Your task to perform on an android device: What's on my calendar tomorrow? Image 0: 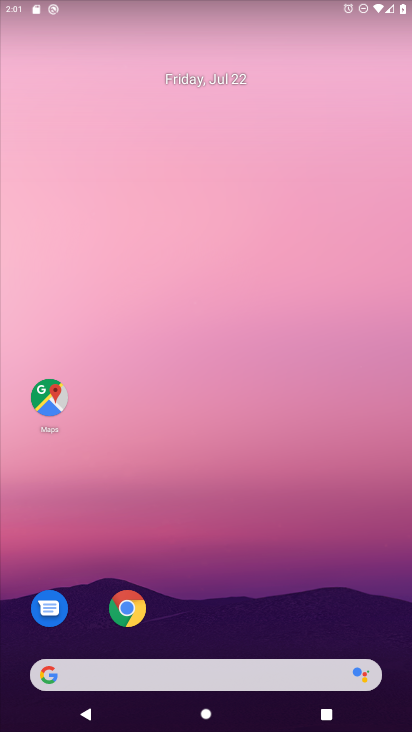
Step 0: drag from (300, 570) to (191, 29)
Your task to perform on an android device: What's on my calendar tomorrow? Image 1: 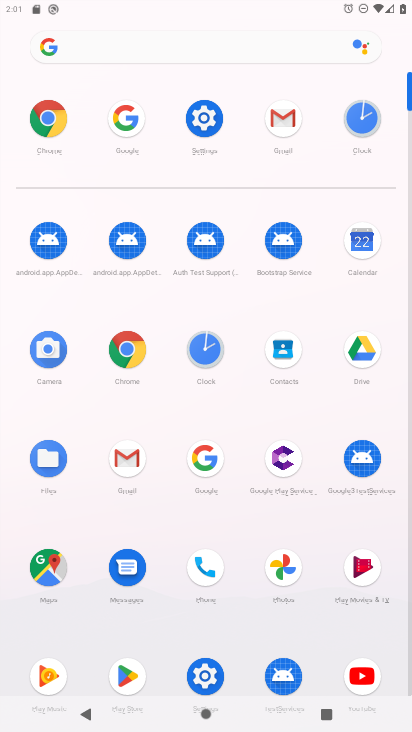
Step 1: click (376, 241)
Your task to perform on an android device: What's on my calendar tomorrow? Image 2: 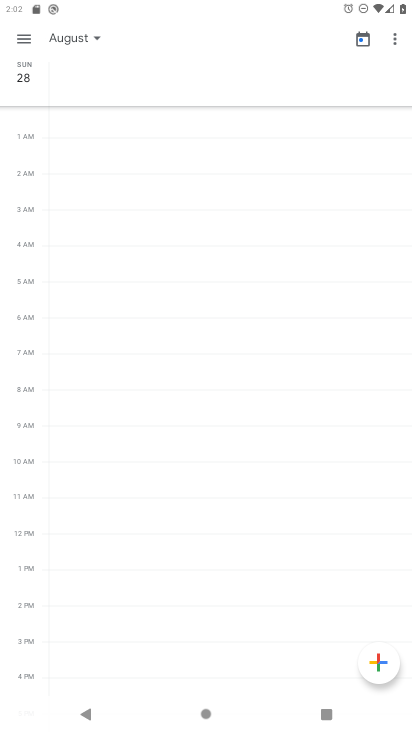
Step 2: task complete